Your task to perform on an android device: turn off location Image 0: 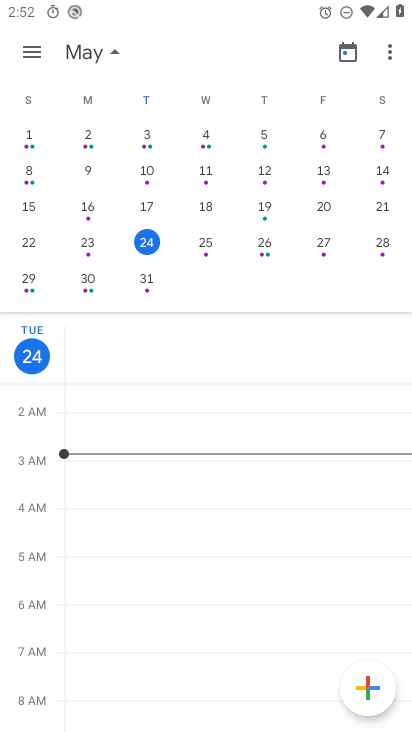
Step 0: press home button
Your task to perform on an android device: turn off location Image 1: 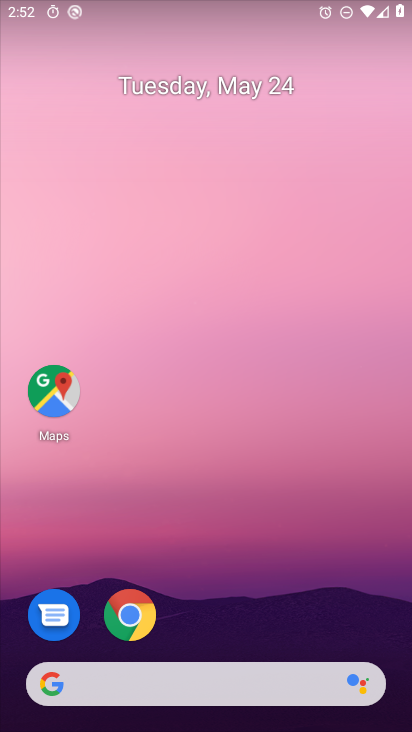
Step 1: drag from (203, 627) to (203, 296)
Your task to perform on an android device: turn off location Image 2: 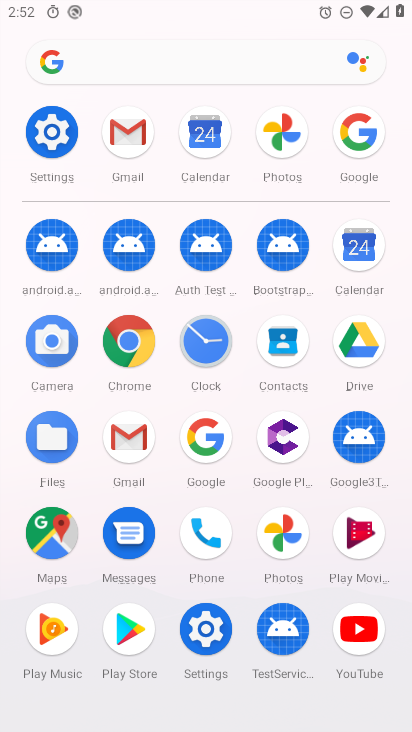
Step 2: click (67, 135)
Your task to perform on an android device: turn off location Image 3: 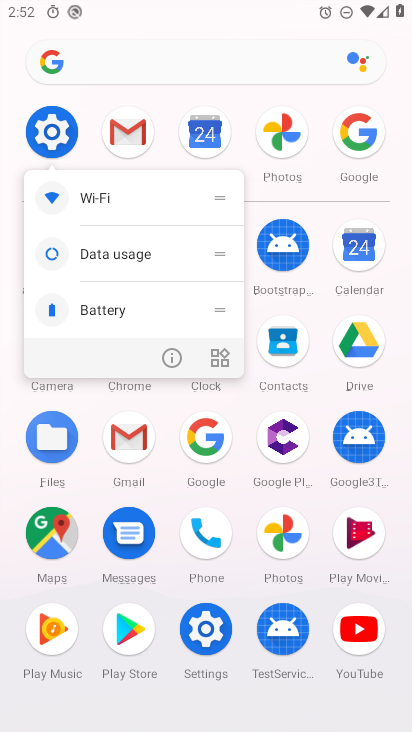
Step 3: click (46, 140)
Your task to perform on an android device: turn off location Image 4: 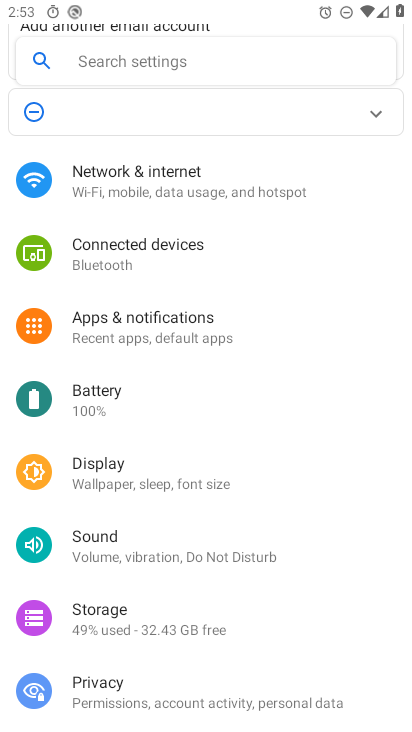
Step 4: drag from (107, 676) to (107, 334)
Your task to perform on an android device: turn off location Image 5: 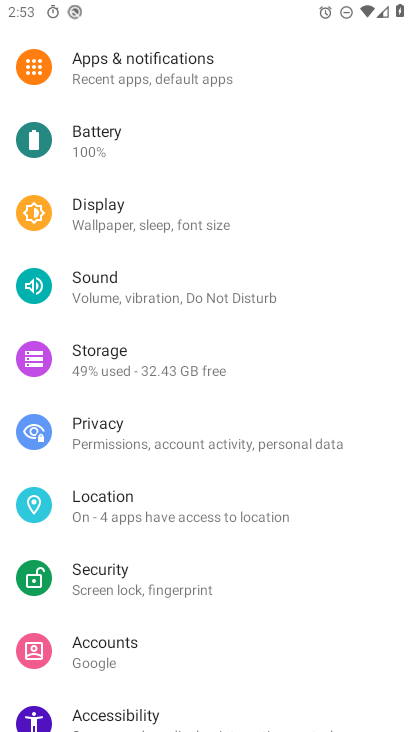
Step 5: click (117, 513)
Your task to perform on an android device: turn off location Image 6: 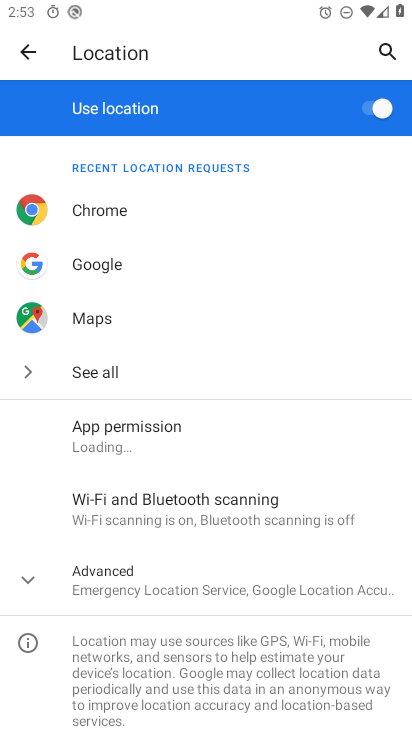
Step 6: click (86, 581)
Your task to perform on an android device: turn off location Image 7: 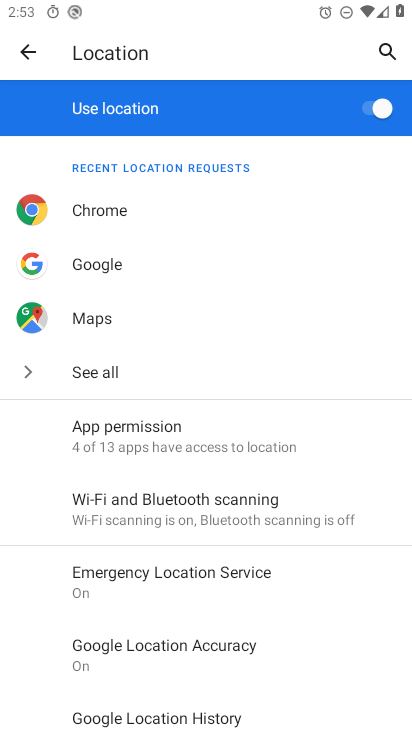
Step 7: drag from (150, 719) to (175, 407)
Your task to perform on an android device: turn off location Image 8: 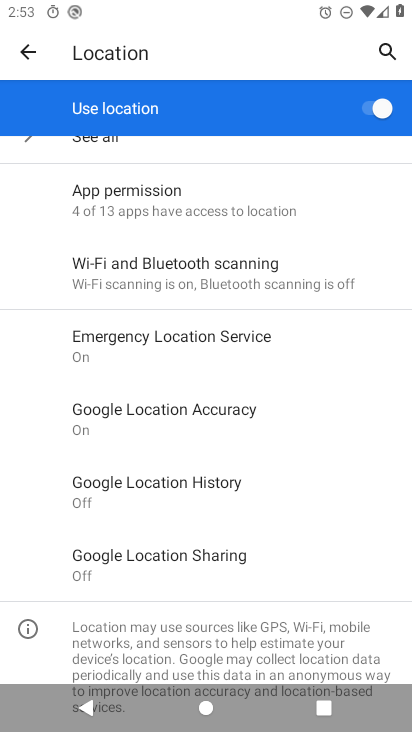
Step 8: click (208, 489)
Your task to perform on an android device: turn off location Image 9: 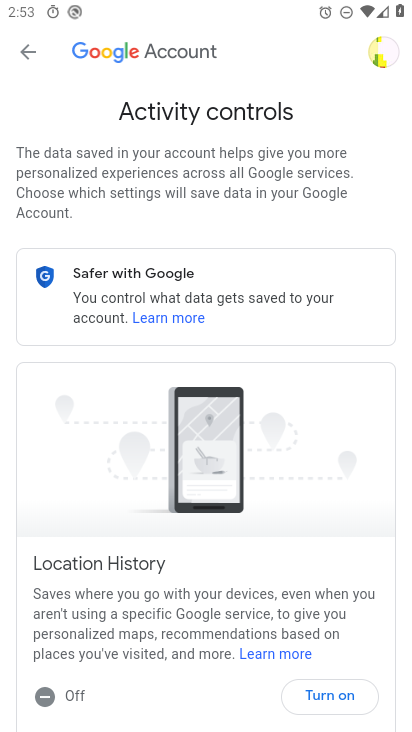
Step 9: task complete